Your task to perform on an android device: toggle location history Image 0: 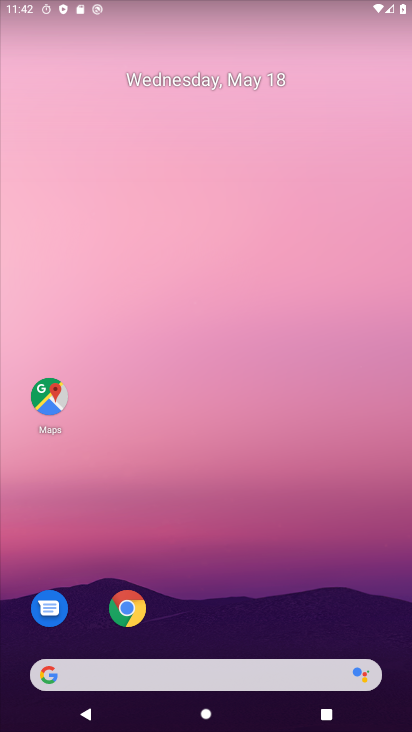
Step 0: click (59, 395)
Your task to perform on an android device: toggle location history Image 1: 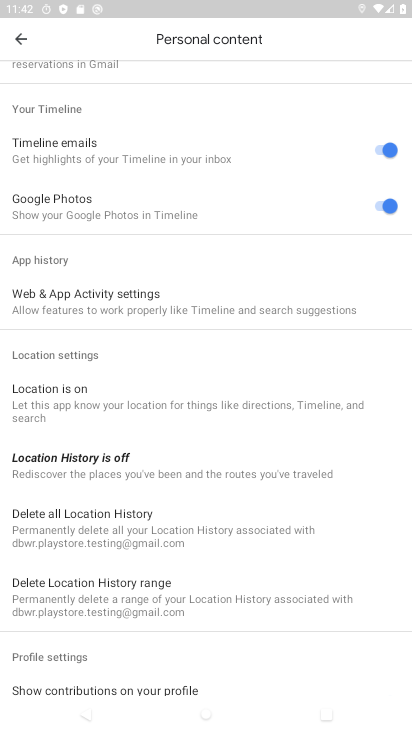
Step 1: click (183, 484)
Your task to perform on an android device: toggle location history Image 2: 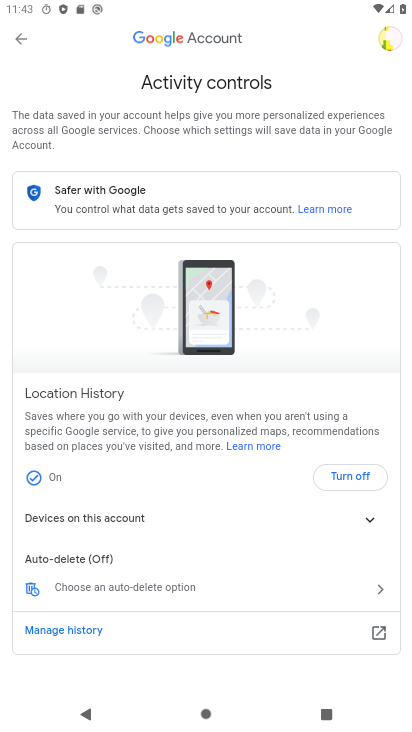
Step 2: click (330, 474)
Your task to perform on an android device: toggle location history Image 3: 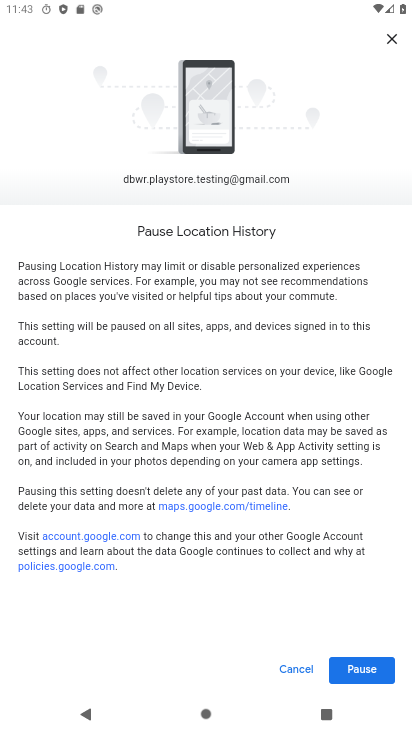
Step 3: click (372, 670)
Your task to perform on an android device: toggle location history Image 4: 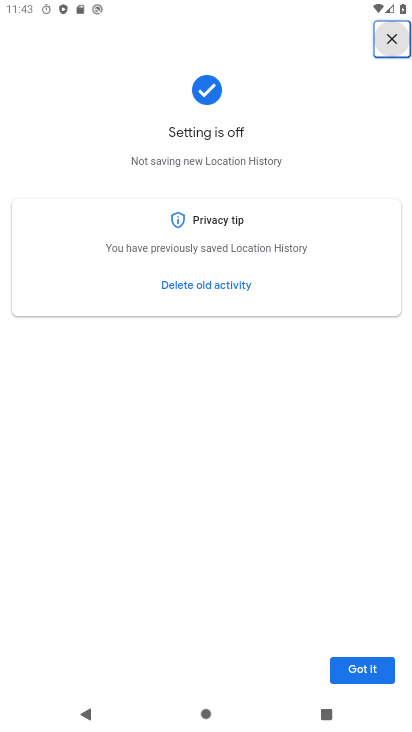
Step 4: click (372, 670)
Your task to perform on an android device: toggle location history Image 5: 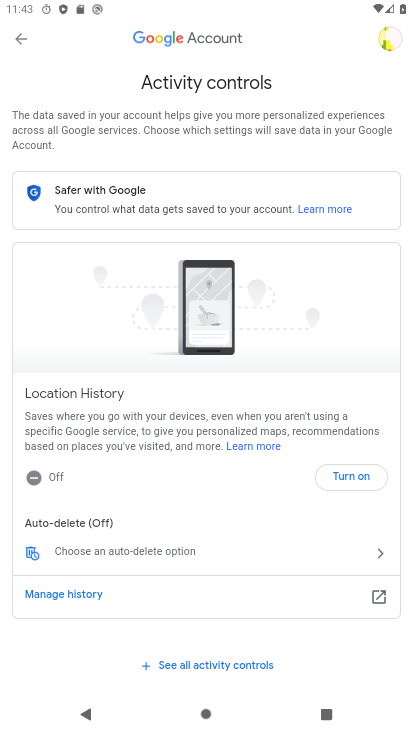
Step 5: task complete